Your task to perform on an android device: Open Maps and search for coffee Image 0: 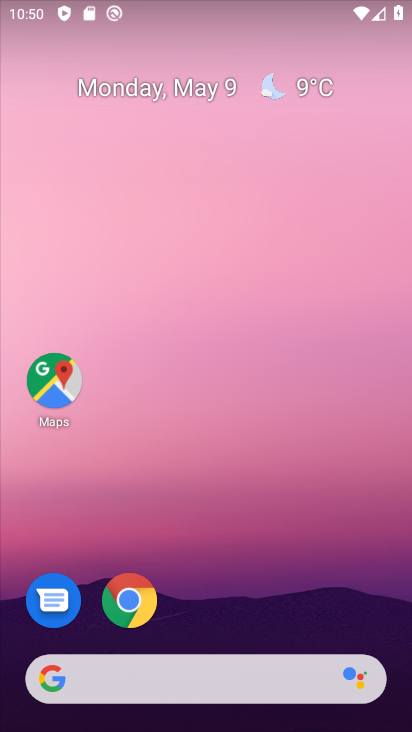
Step 0: drag from (334, 589) to (291, 200)
Your task to perform on an android device: Open Maps and search for coffee Image 1: 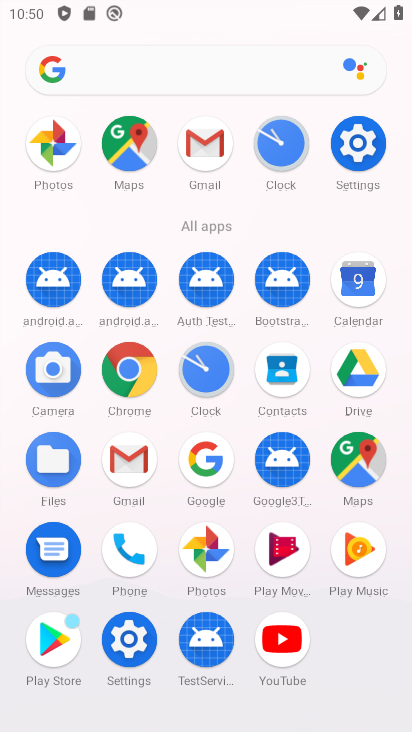
Step 1: click (122, 158)
Your task to perform on an android device: Open Maps and search for coffee Image 2: 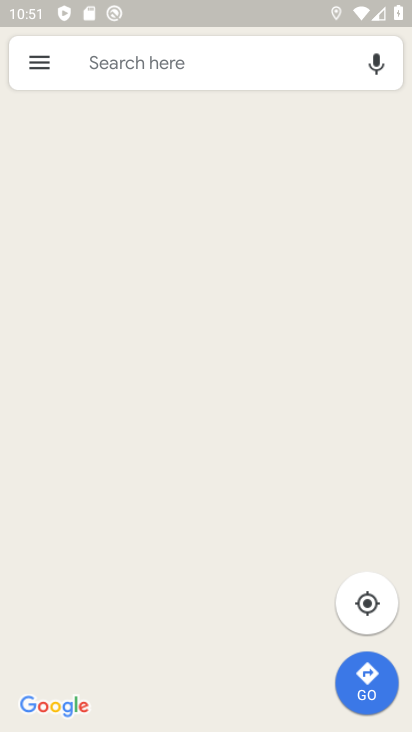
Step 2: click (185, 49)
Your task to perform on an android device: Open Maps and search for coffee Image 3: 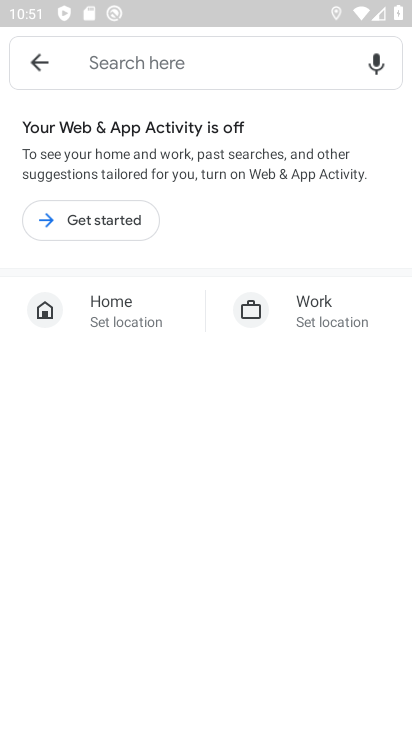
Step 3: click (177, 70)
Your task to perform on an android device: Open Maps and search for coffee Image 4: 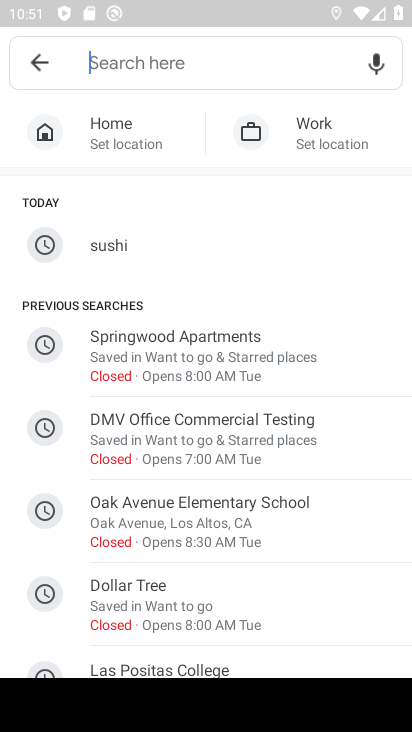
Step 4: type "coffee"
Your task to perform on an android device: Open Maps and search for coffee Image 5: 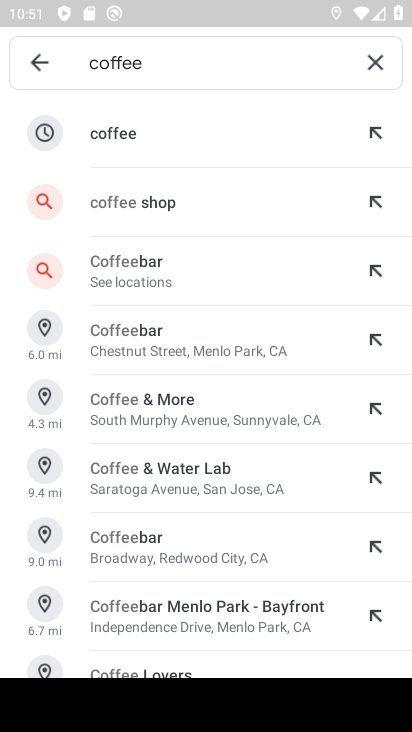
Step 5: click (124, 142)
Your task to perform on an android device: Open Maps and search for coffee Image 6: 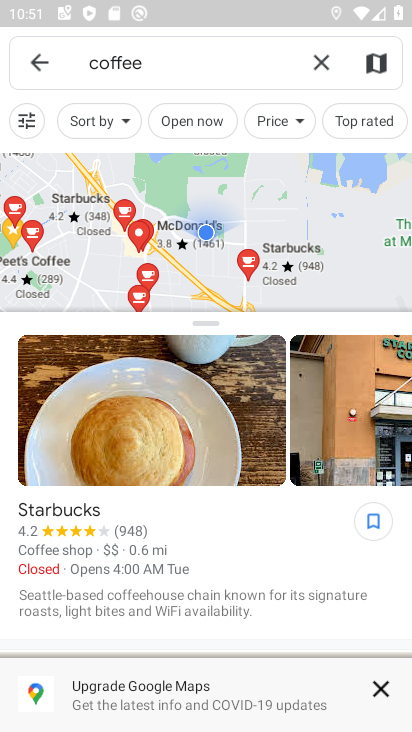
Step 6: task complete